Your task to perform on an android device: see sites visited before in the chrome app Image 0: 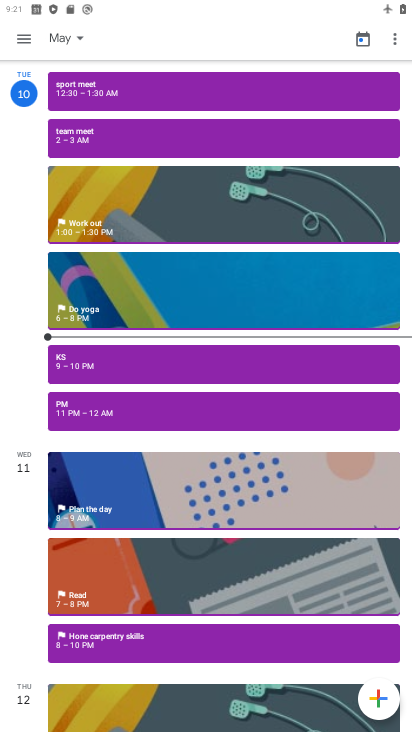
Step 0: press home button
Your task to perform on an android device: see sites visited before in the chrome app Image 1: 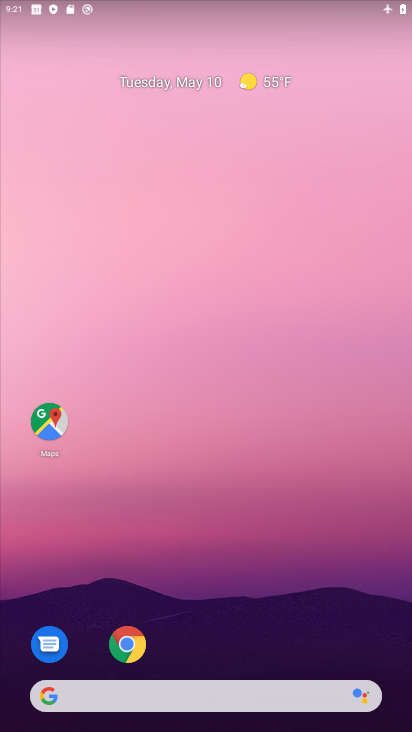
Step 1: drag from (257, 597) to (239, 244)
Your task to perform on an android device: see sites visited before in the chrome app Image 2: 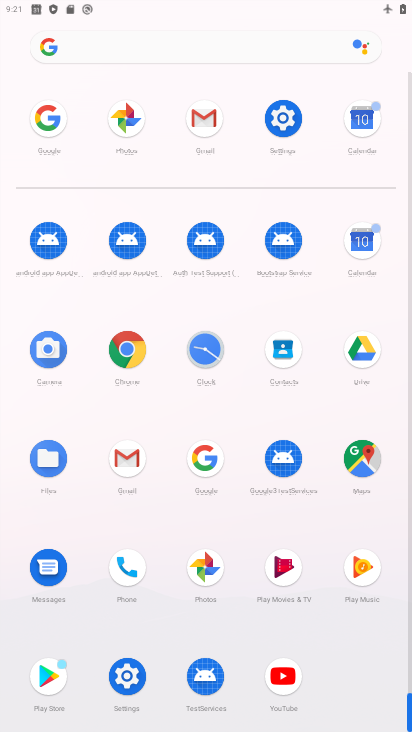
Step 2: click (137, 365)
Your task to perform on an android device: see sites visited before in the chrome app Image 3: 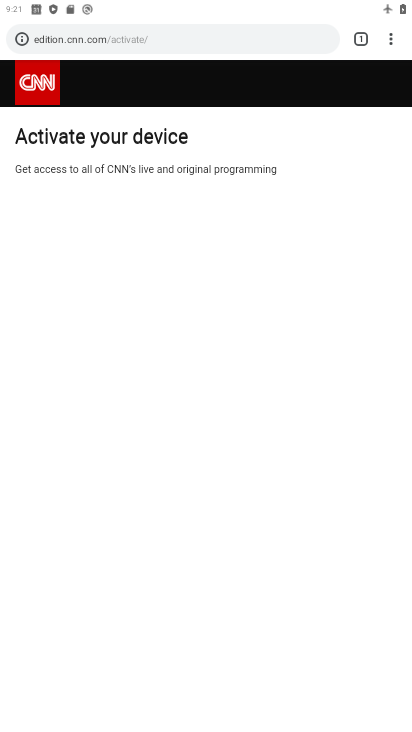
Step 3: click (394, 37)
Your task to perform on an android device: see sites visited before in the chrome app Image 4: 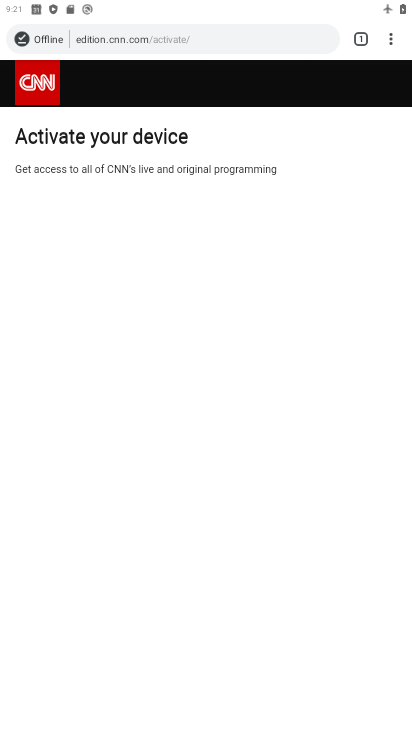
Step 4: click (394, 37)
Your task to perform on an android device: see sites visited before in the chrome app Image 5: 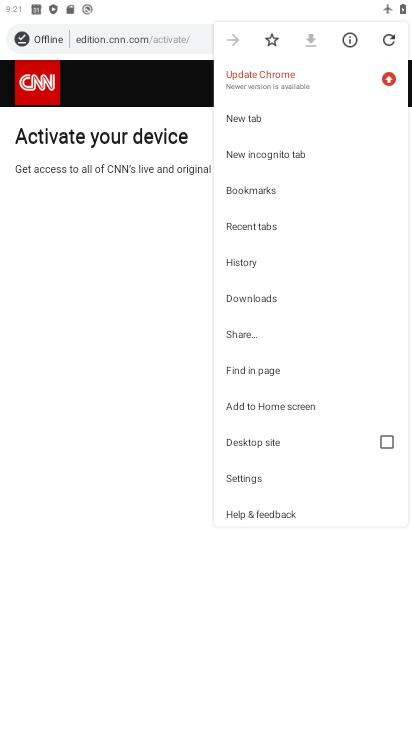
Step 5: click (276, 263)
Your task to perform on an android device: see sites visited before in the chrome app Image 6: 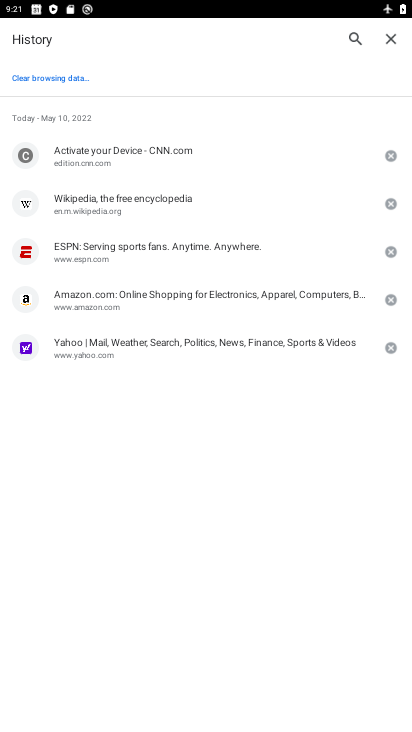
Step 6: task complete